Your task to perform on an android device: Turn on the flashlight Image 0: 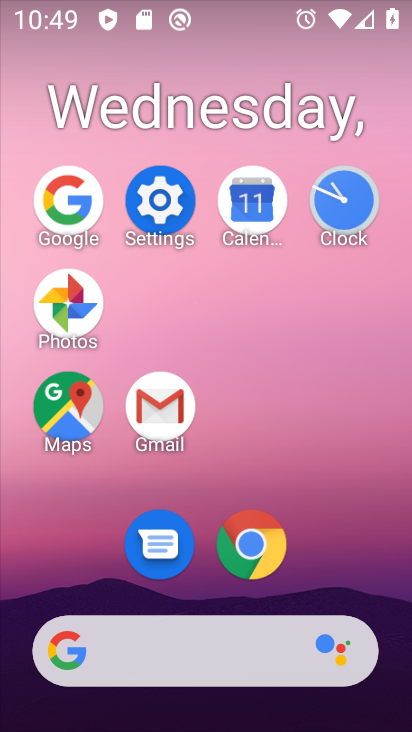
Step 0: drag from (254, 1) to (209, 519)
Your task to perform on an android device: Turn on the flashlight Image 1: 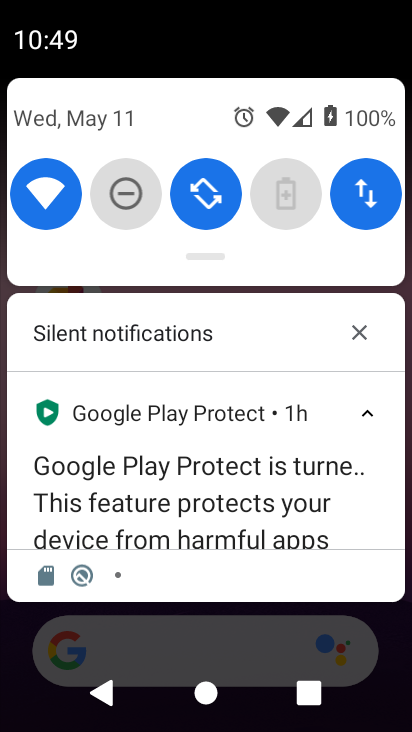
Step 1: task complete